Your task to perform on an android device: Play the last video I watched on Youtube Image 0: 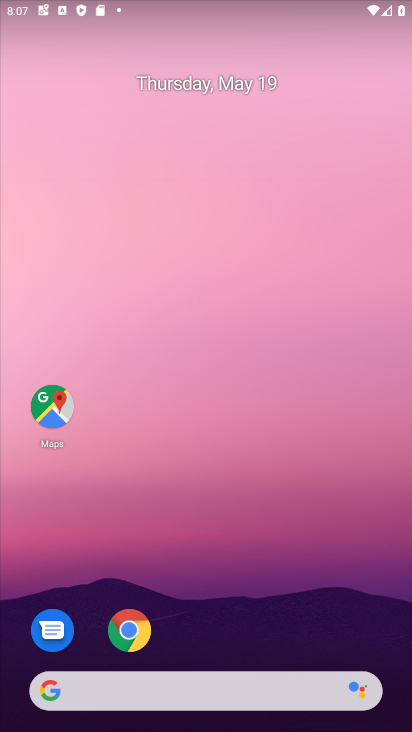
Step 0: drag from (395, 667) to (361, 228)
Your task to perform on an android device: Play the last video I watched on Youtube Image 1: 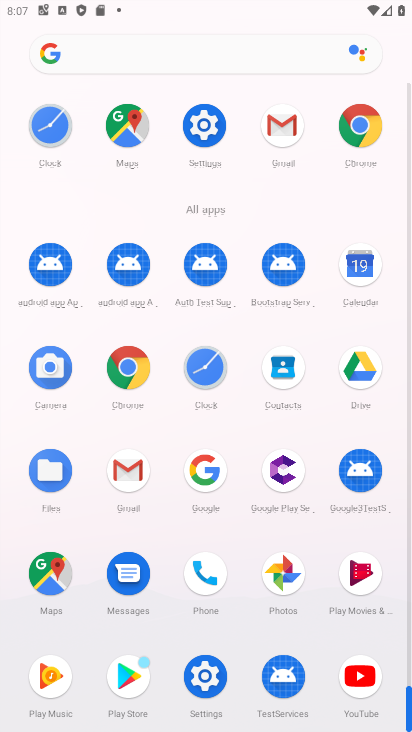
Step 1: click (357, 676)
Your task to perform on an android device: Play the last video I watched on Youtube Image 2: 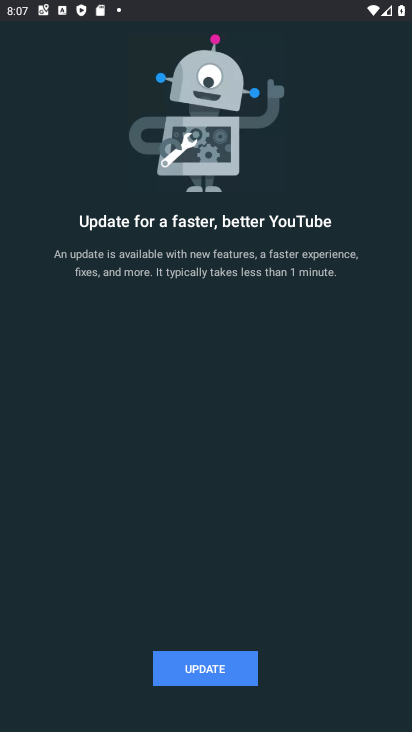
Step 2: click (194, 667)
Your task to perform on an android device: Play the last video I watched on Youtube Image 3: 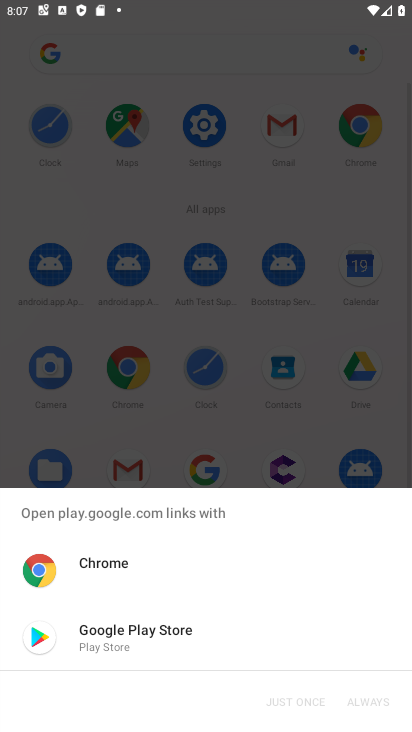
Step 3: click (88, 632)
Your task to perform on an android device: Play the last video I watched on Youtube Image 4: 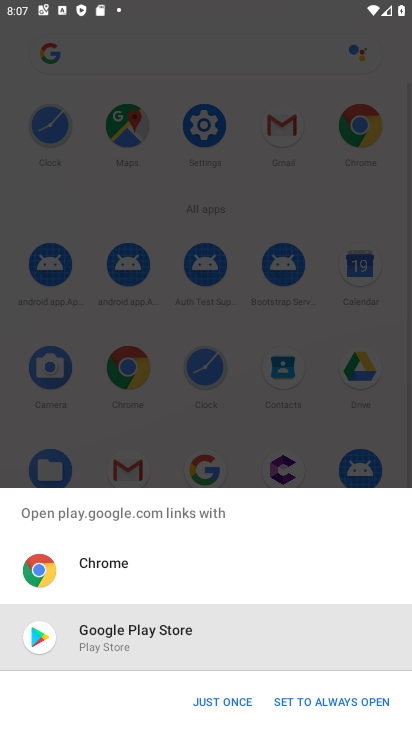
Step 4: click (218, 703)
Your task to perform on an android device: Play the last video I watched on Youtube Image 5: 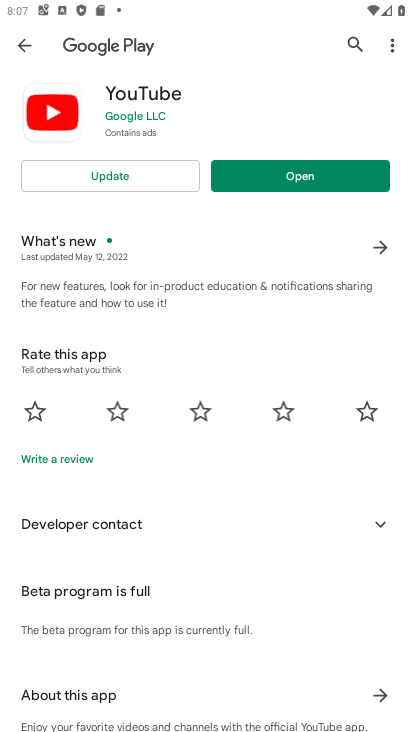
Step 5: click (86, 171)
Your task to perform on an android device: Play the last video I watched on Youtube Image 6: 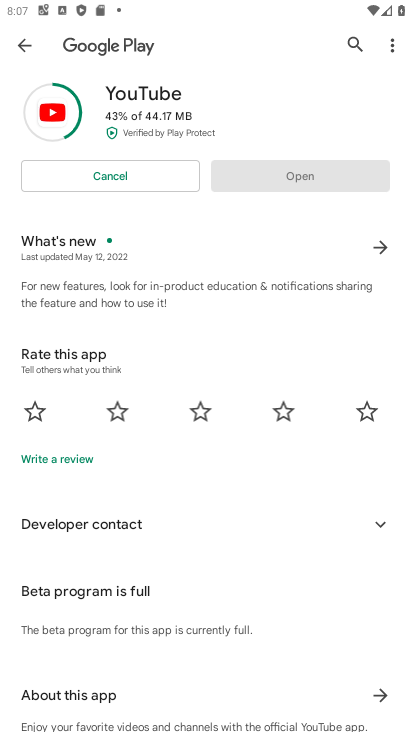
Step 6: click (100, 182)
Your task to perform on an android device: Play the last video I watched on Youtube Image 7: 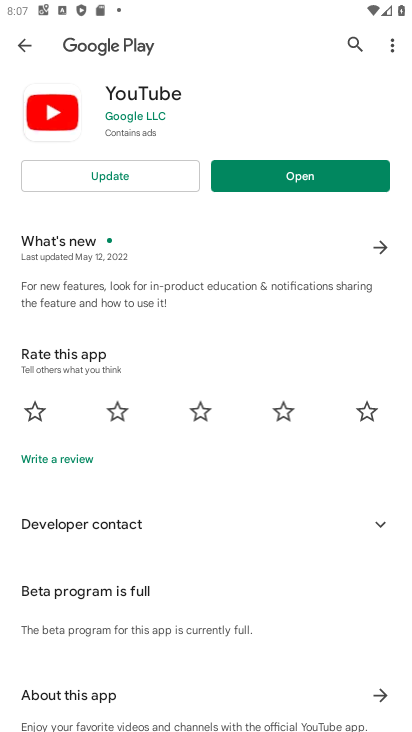
Step 7: click (100, 182)
Your task to perform on an android device: Play the last video I watched on Youtube Image 8: 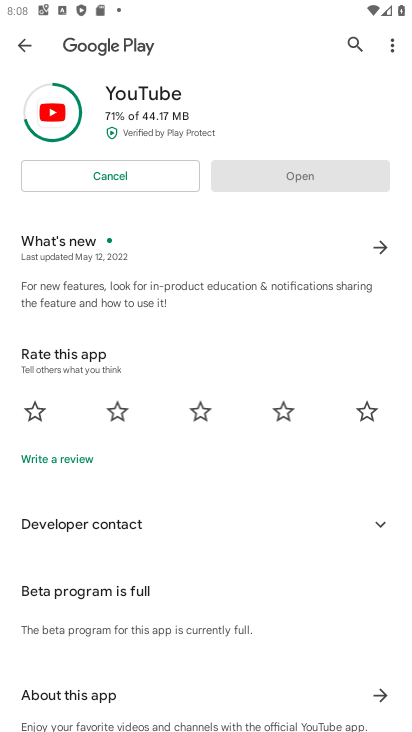
Step 8: click (305, 172)
Your task to perform on an android device: Play the last video I watched on Youtube Image 9: 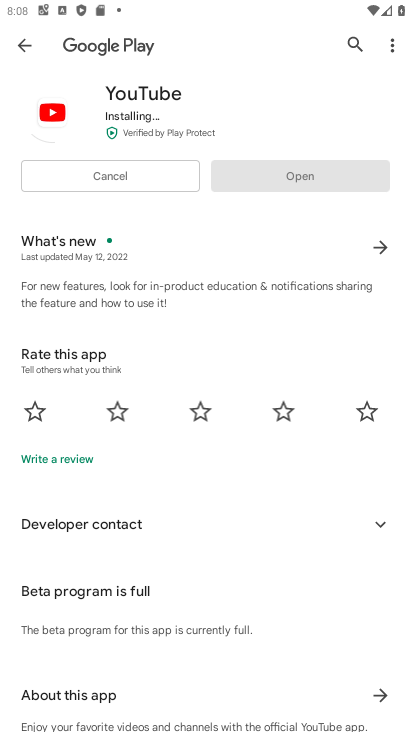
Step 9: click (305, 172)
Your task to perform on an android device: Play the last video I watched on Youtube Image 10: 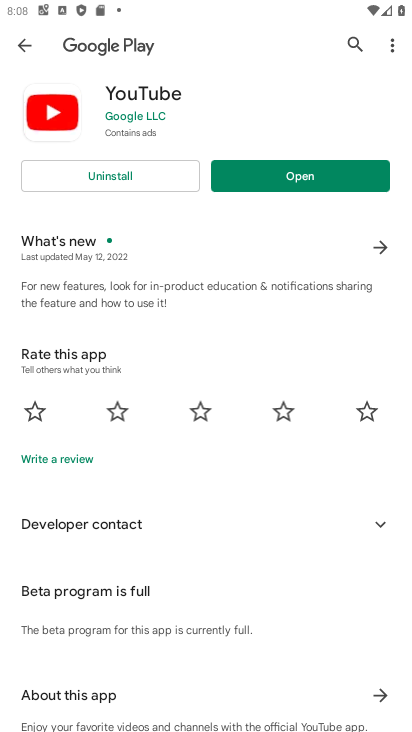
Step 10: click (305, 174)
Your task to perform on an android device: Play the last video I watched on Youtube Image 11: 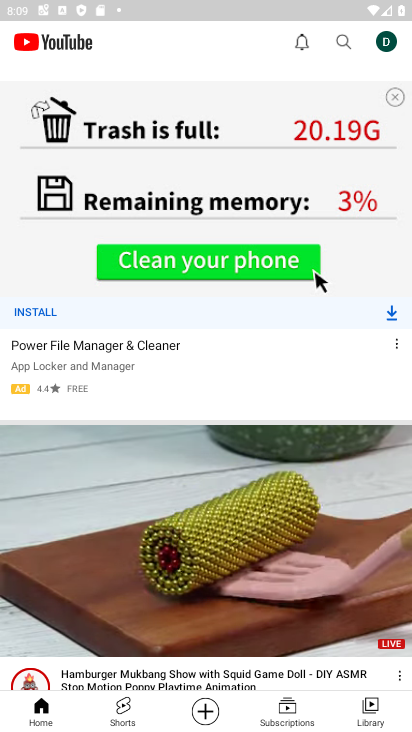
Step 11: click (370, 716)
Your task to perform on an android device: Play the last video I watched on Youtube Image 12: 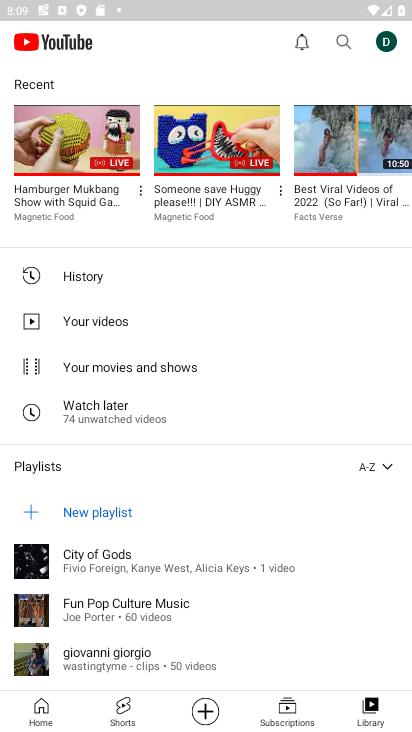
Step 12: click (370, 716)
Your task to perform on an android device: Play the last video I watched on Youtube Image 13: 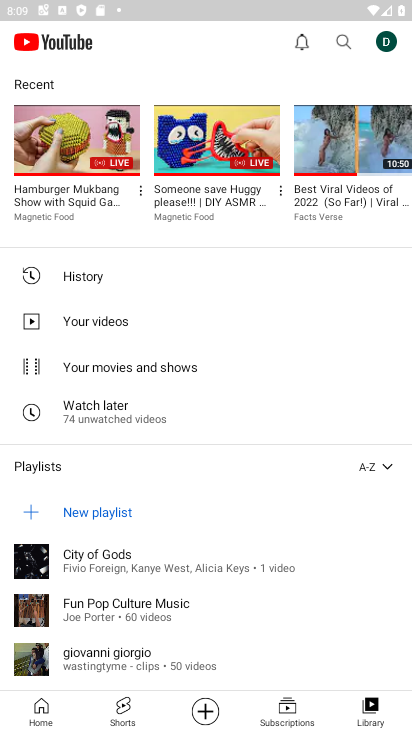
Step 13: click (81, 140)
Your task to perform on an android device: Play the last video I watched on Youtube Image 14: 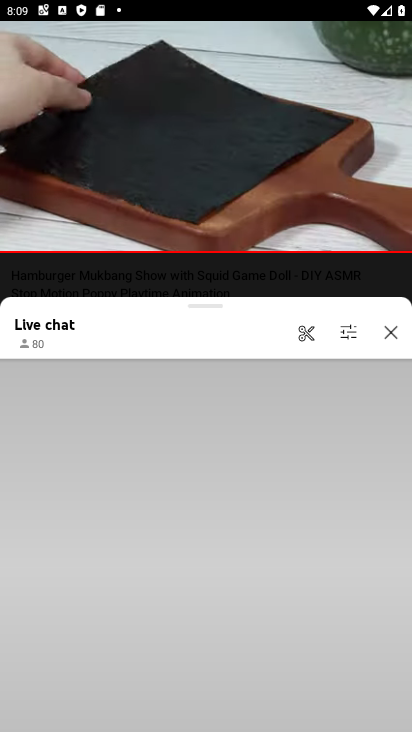
Step 14: click (211, 140)
Your task to perform on an android device: Play the last video I watched on Youtube Image 15: 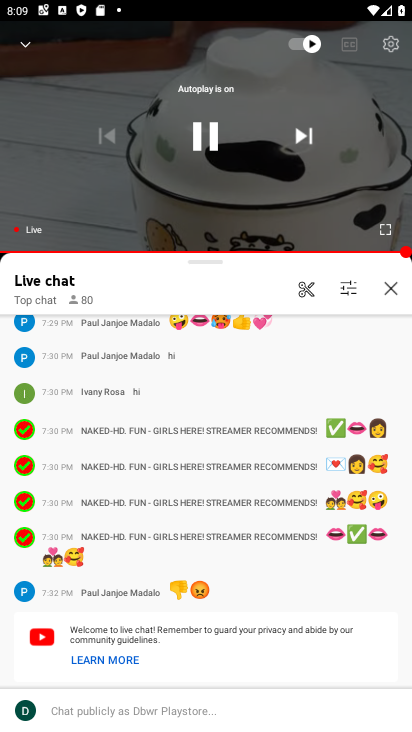
Step 15: click (211, 140)
Your task to perform on an android device: Play the last video I watched on Youtube Image 16: 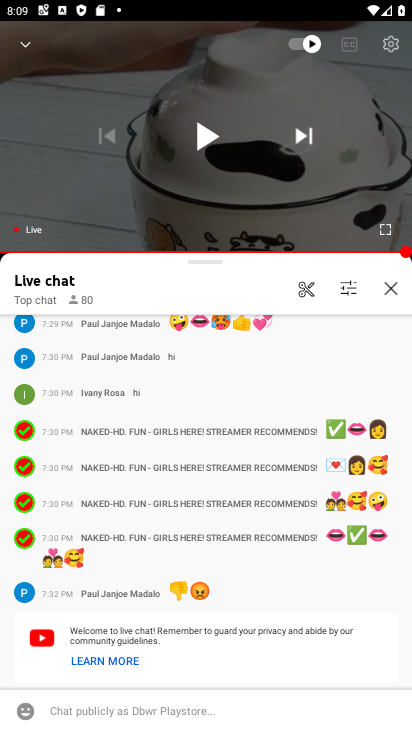
Step 16: task complete